Your task to perform on an android device: set the stopwatch Image 0: 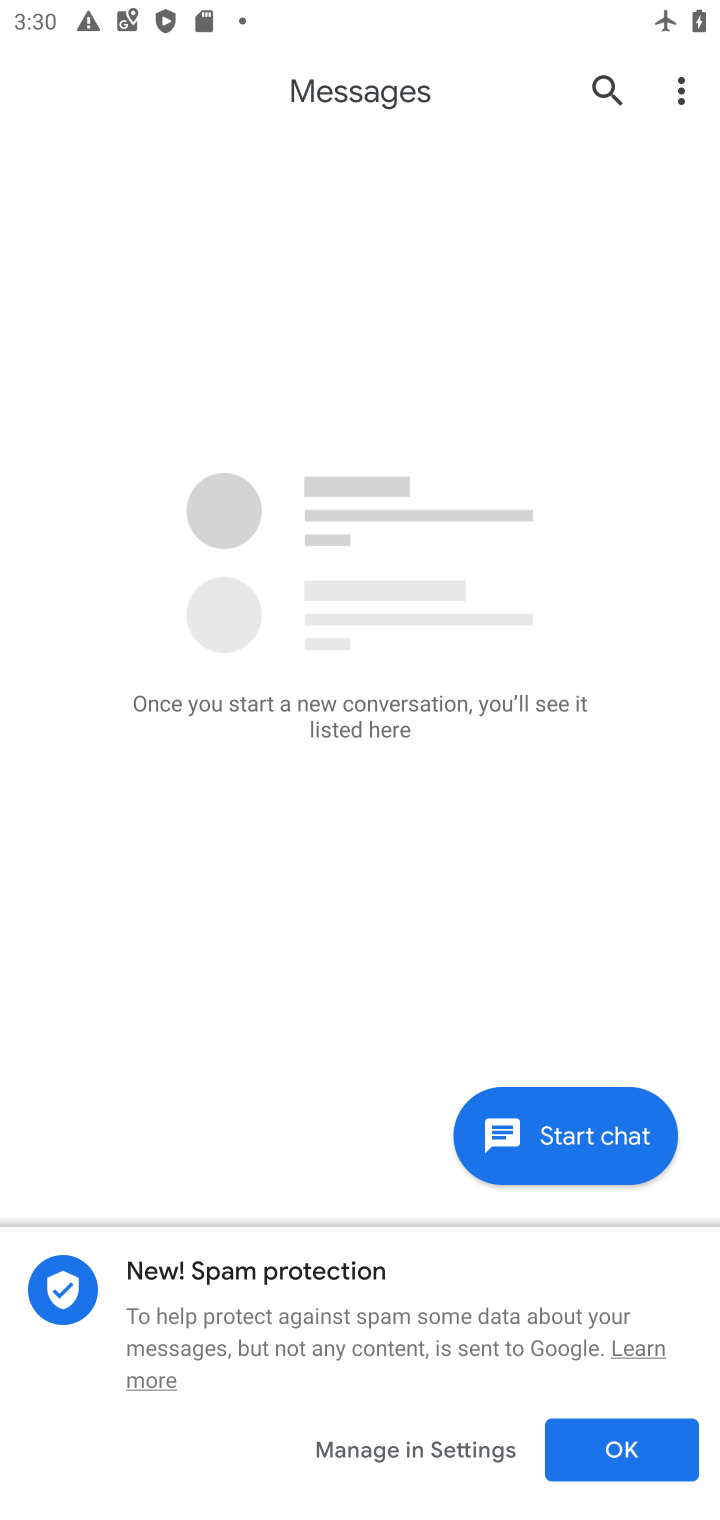
Step 0: press back button
Your task to perform on an android device: set the stopwatch Image 1: 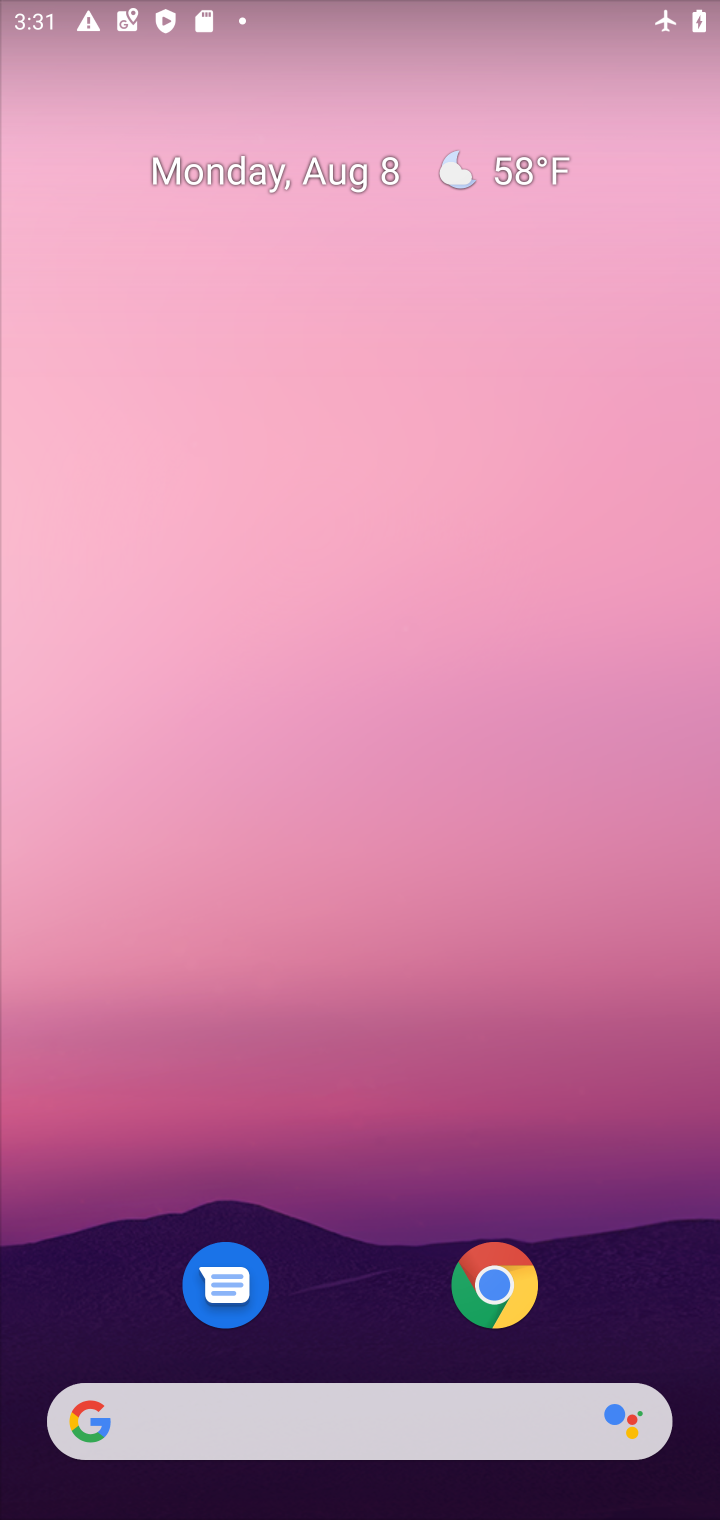
Step 1: drag from (326, 1068) to (480, 17)
Your task to perform on an android device: set the stopwatch Image 2: 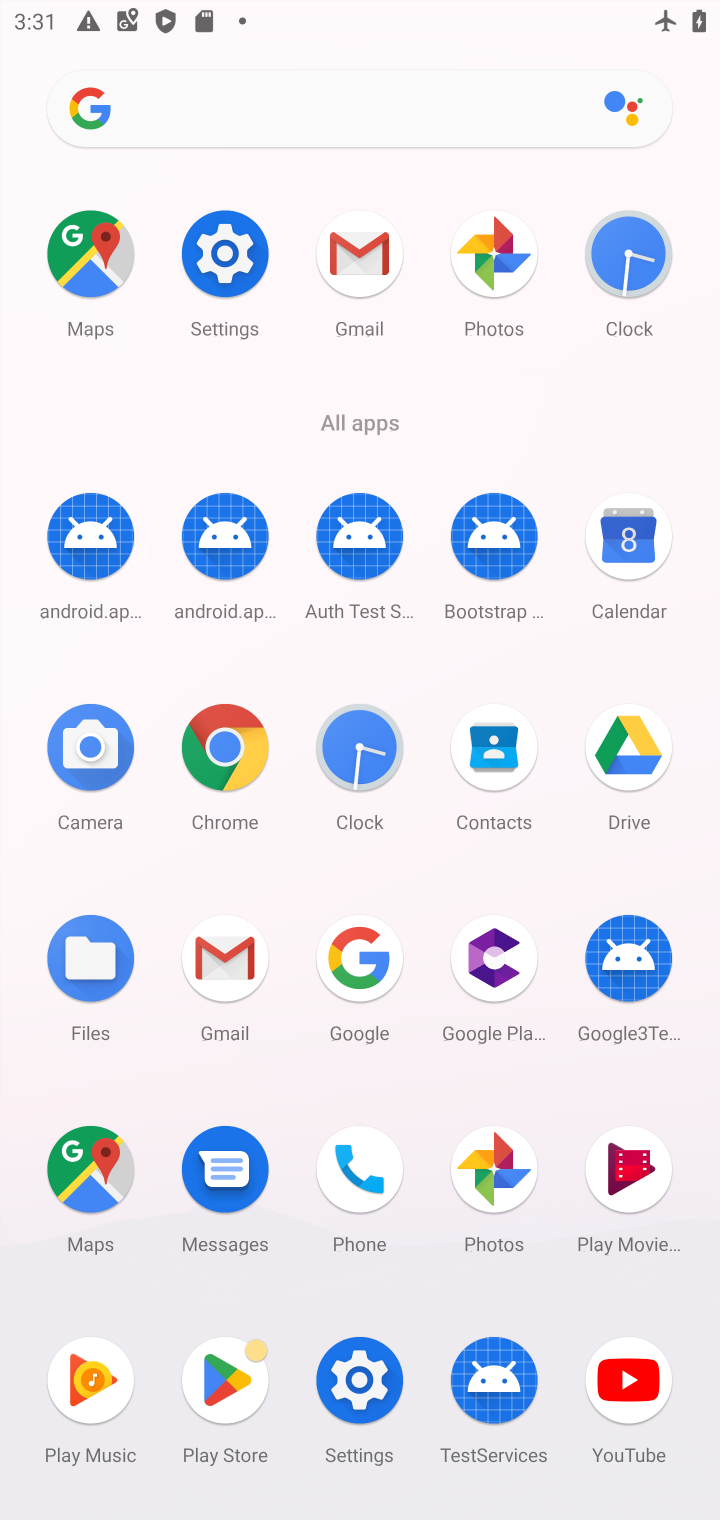
Step 2: click (627, 243)
Your task to perform on an android device: set the stopwatch Image 3: 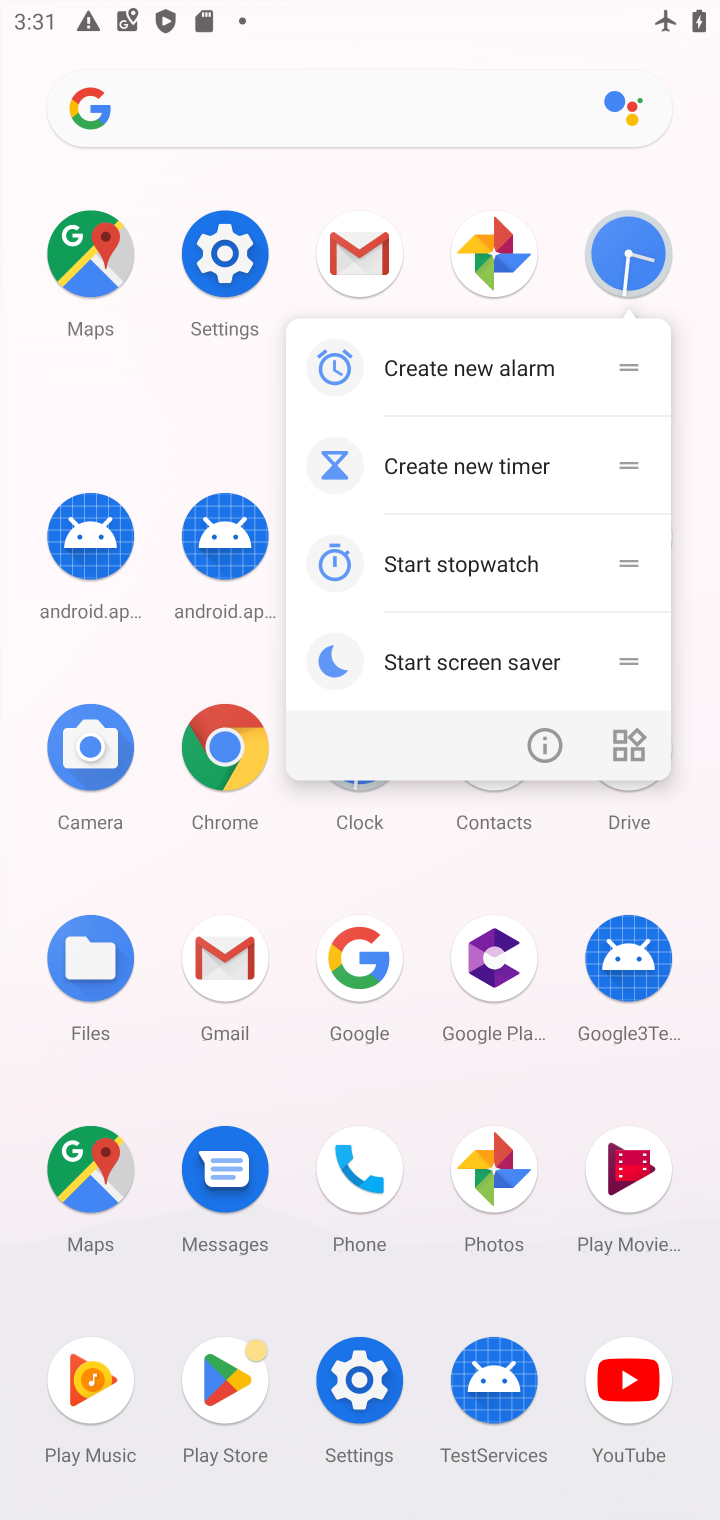
Step 3: click (647, 247)
Your task to perform on an android device: set the stopwatch Image 4: 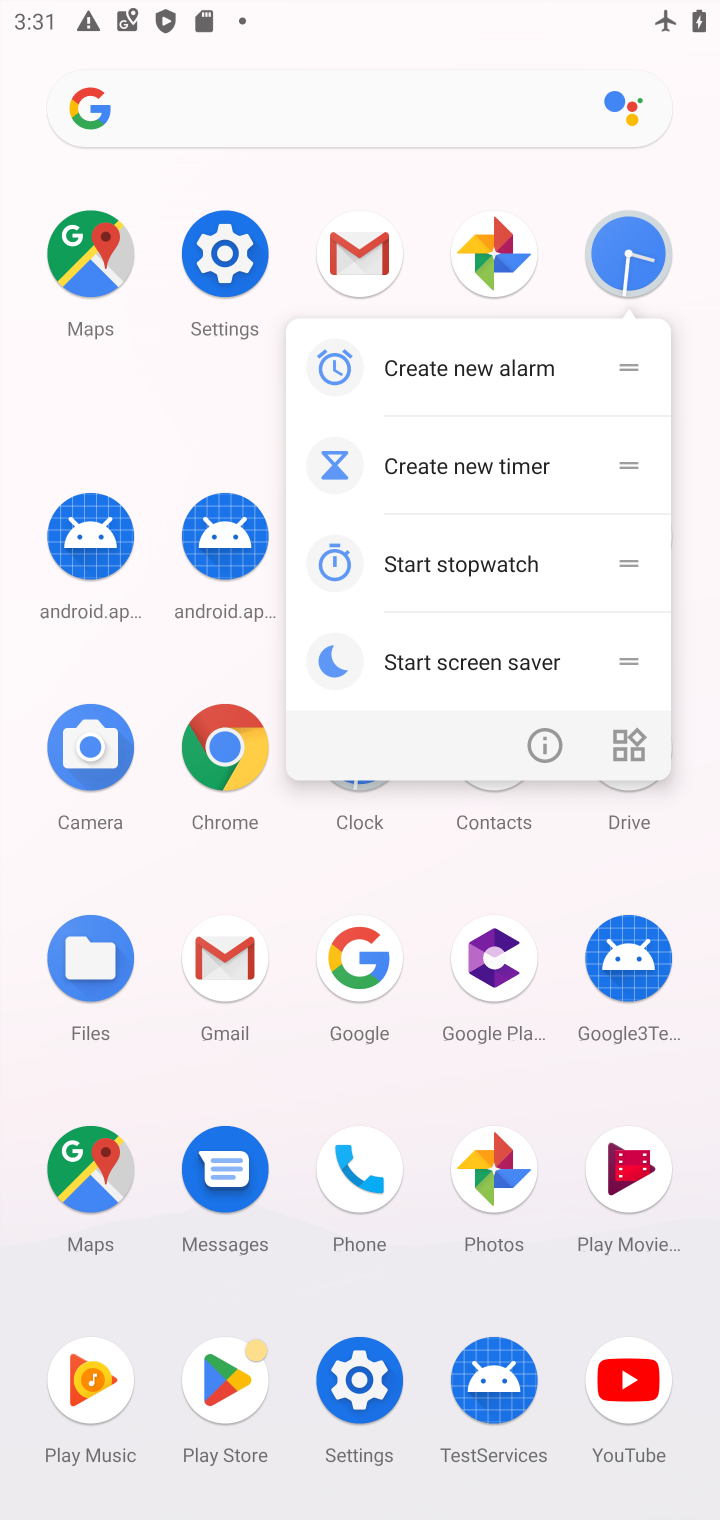
Step 4: click (631, 253)
Your task to perform on an android device: set the stopwatch Image 5: 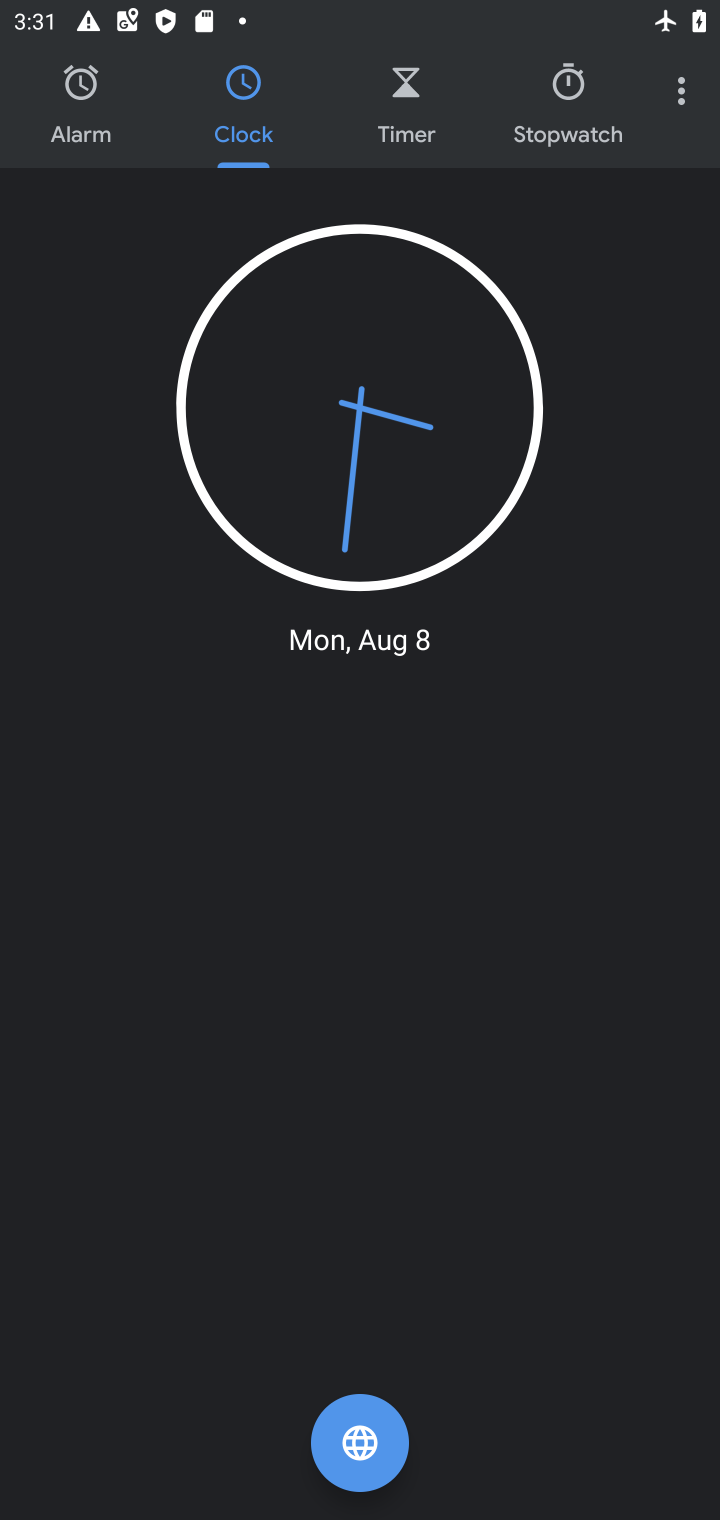
Step 5: click (575, 114)
Your task to perform on an android device: set the stopwatch Image 6: 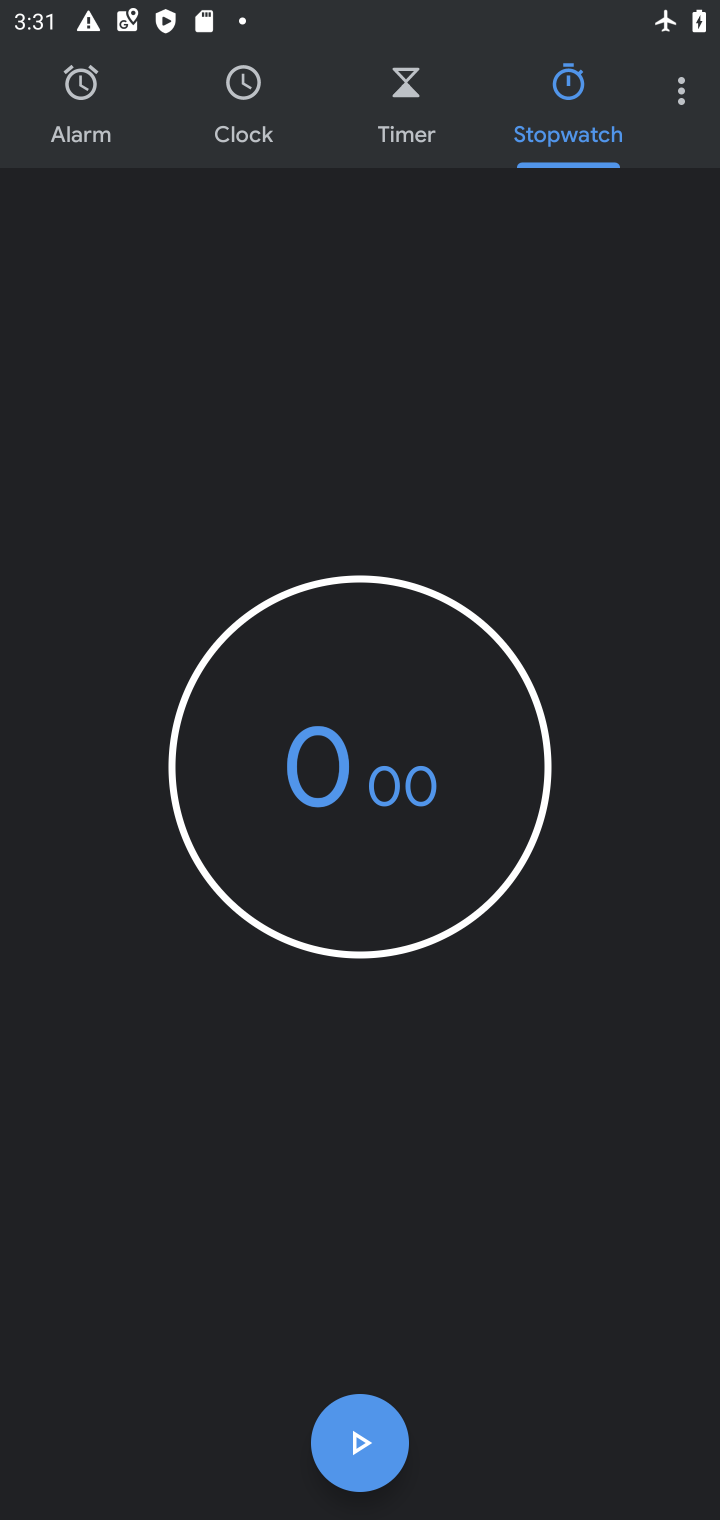
Step 6: click (359, 769)
Your task to perform on an android device: set the stopwatch Image 7: 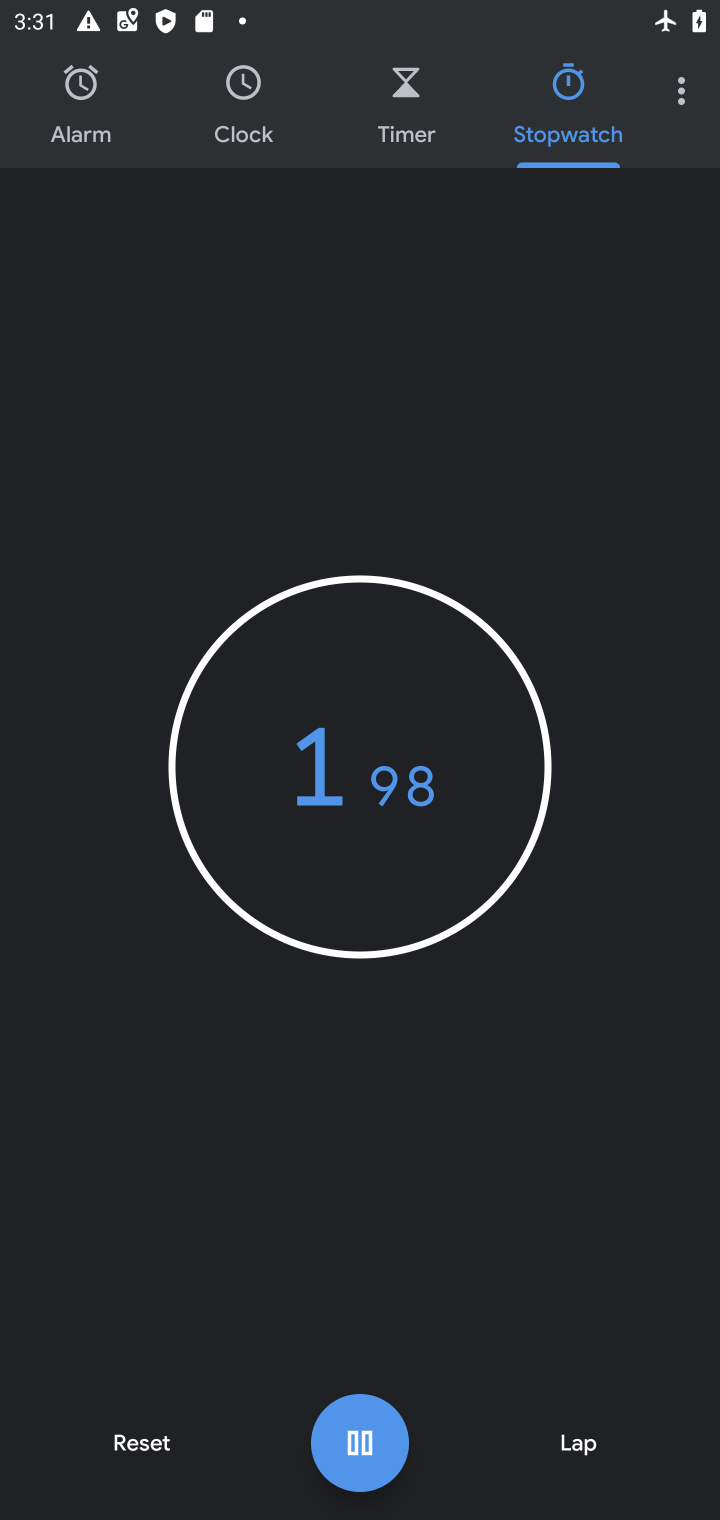
Step 7: click (356, 760)
Your task to perform on an android device: set the stopwatch Image 8: 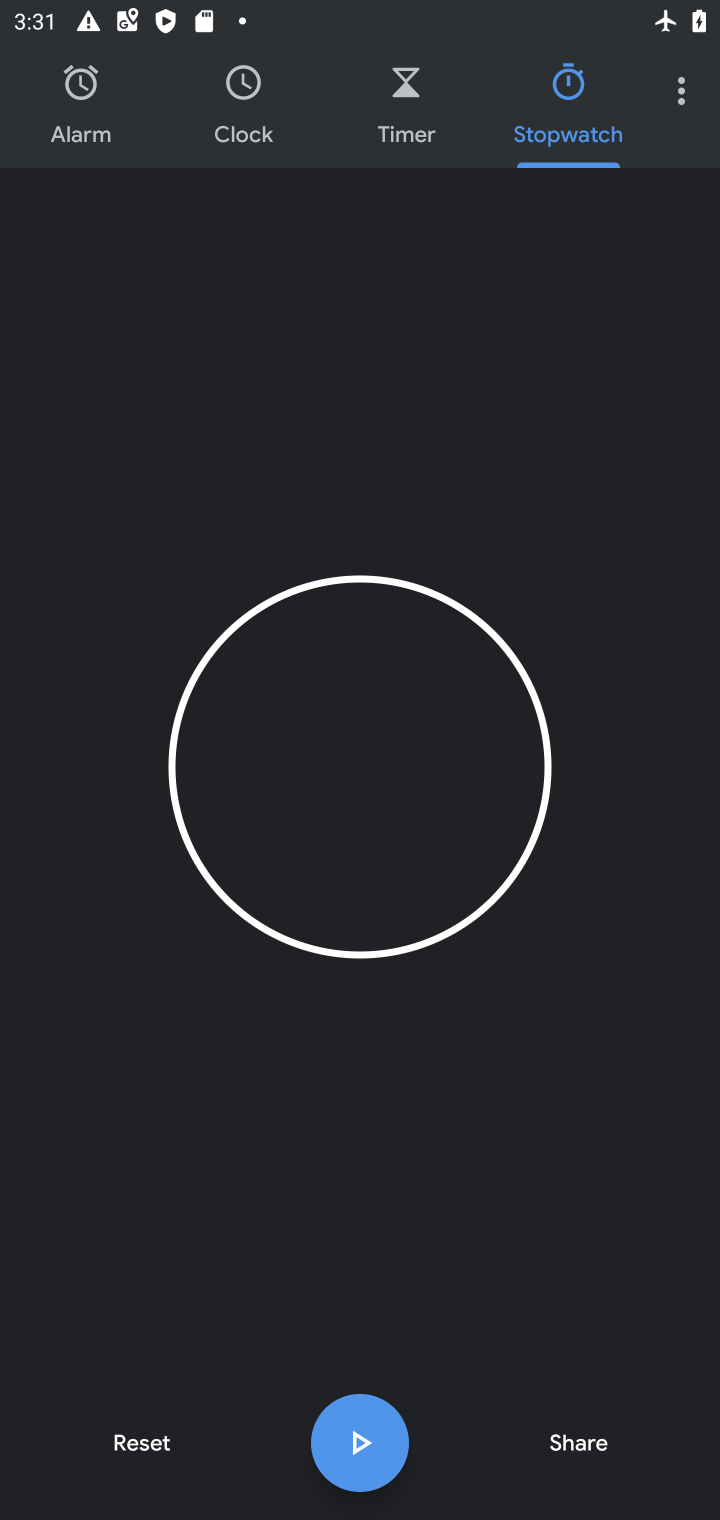
Step 8: task complete